Your task to perform on an android device: toggle data saver in the chrome app Image 0: 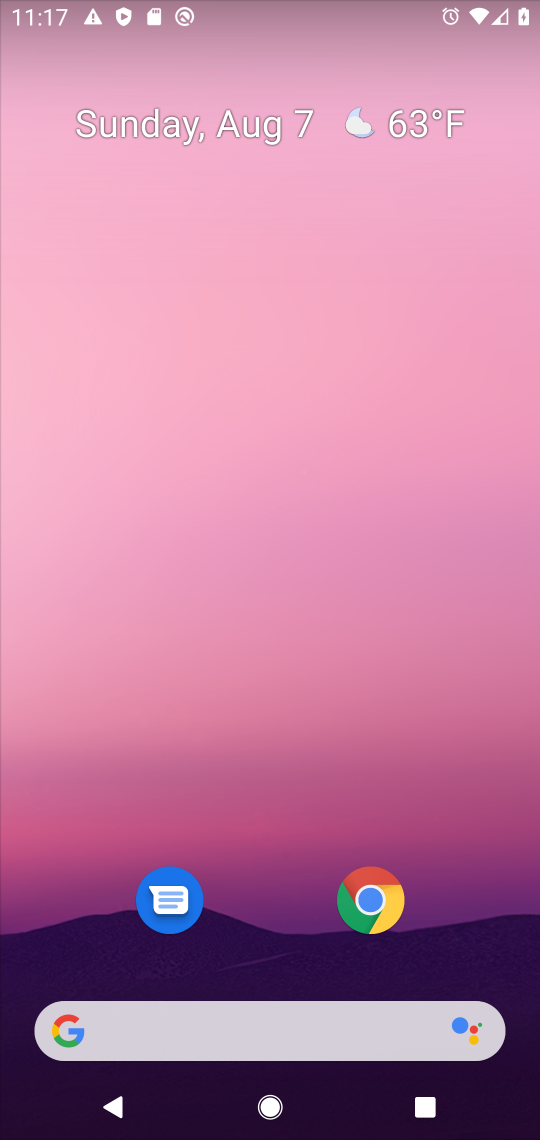
Step 0: press home button
Your task to perform on an android device: toggle data saver in the chrome app Image 1: 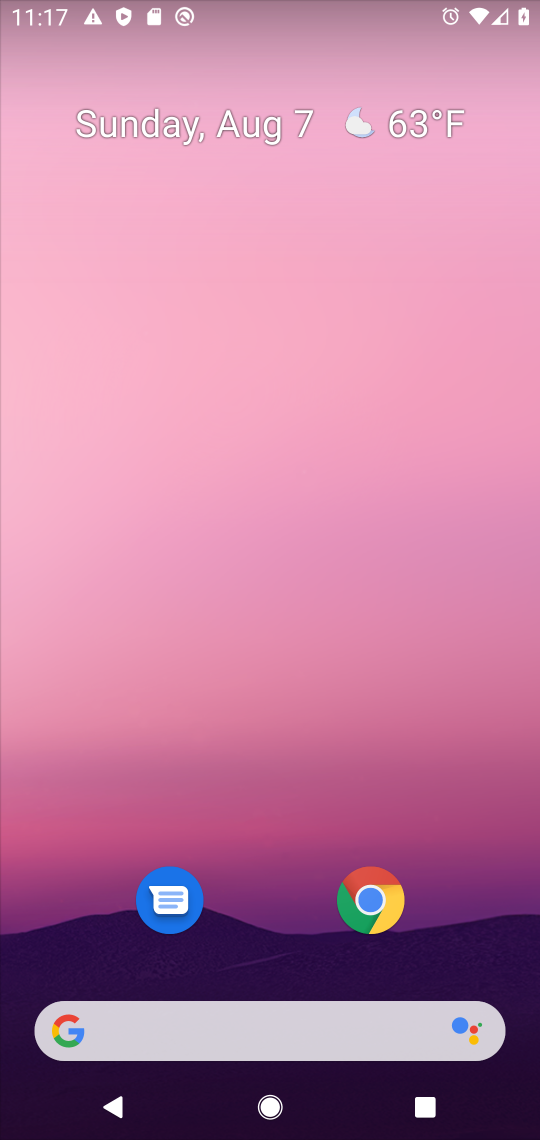
Step 1: click (367, 887)
Your task to perform on an android device: toggle data saver in the chrome app Image 2: 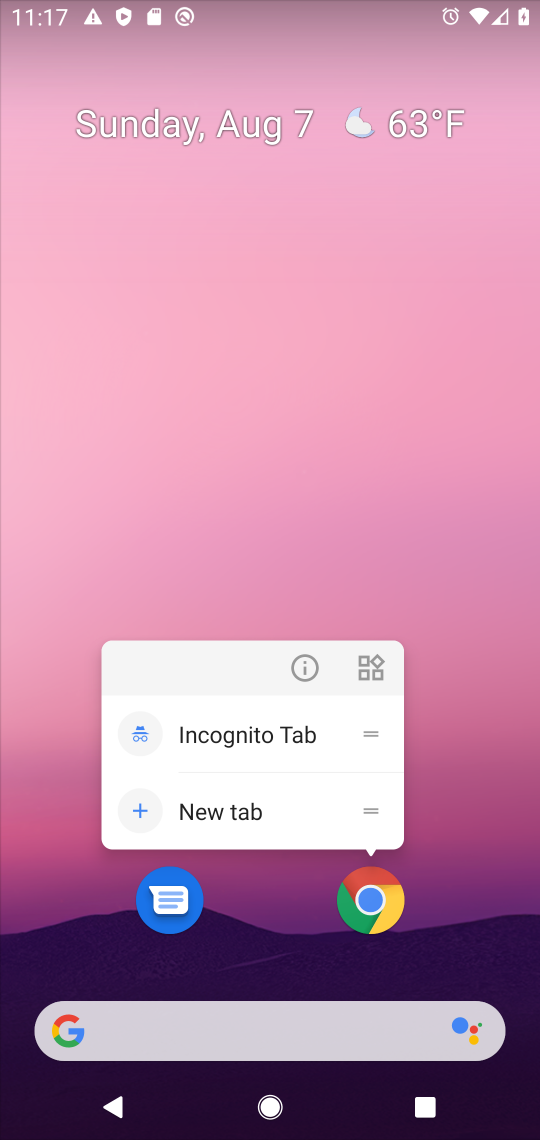
Step 2: click (367, 887)
Your task to perform on an android device: toggle data saver in the chrome app Image 3: 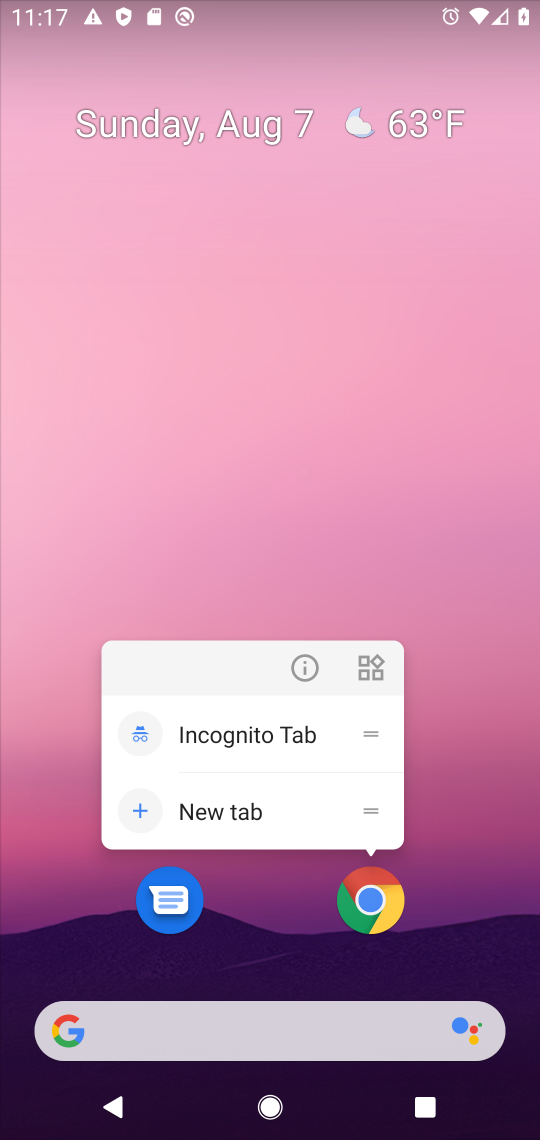
Step 3: click (367, 887)
Your task to perform on an android device: toggle data saver in the chrome app Image 4: 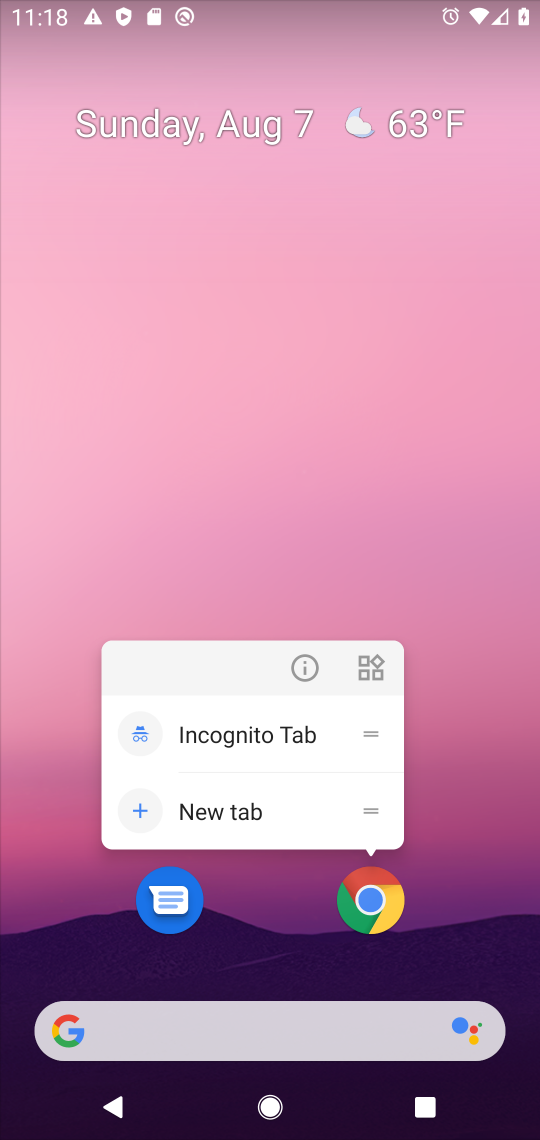
Step 4: click (368, 895)
Your task to perform on an android device: toggle data saver in the chrome app Image 5: 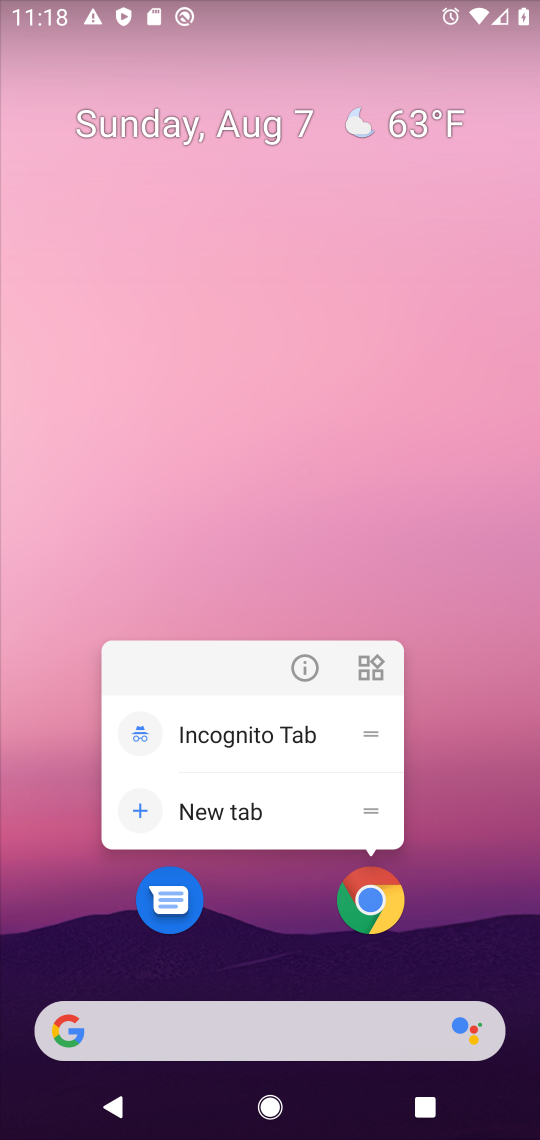
Step 5: click (368, 896)
Your task to perform on an android device: toggle data saver in the chrome app Image 6: 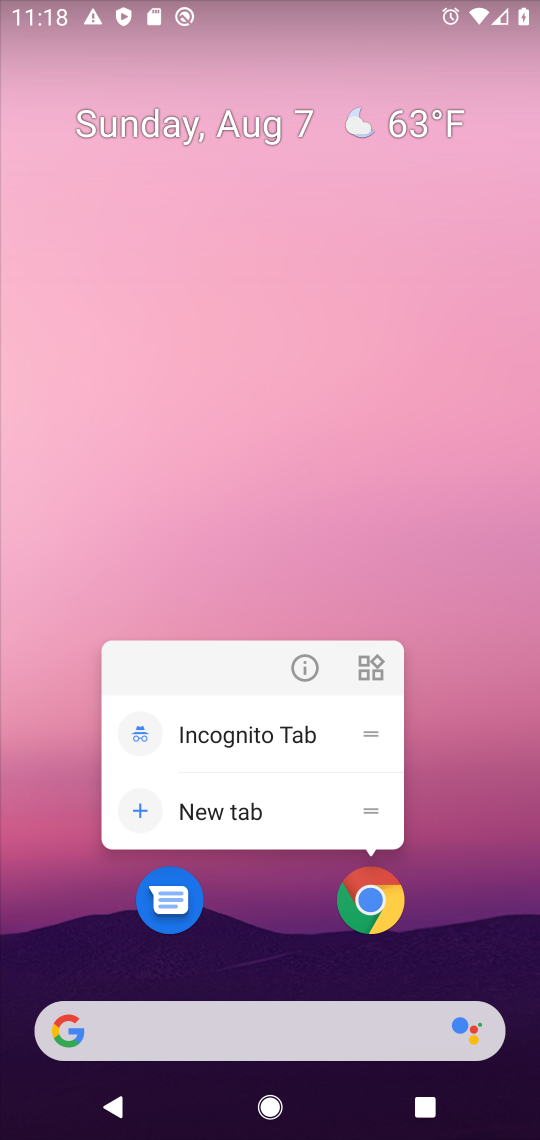
Step 6: click (370, 896)
Your task to perform on an android device: toggle data saver in the chrome app Image 7: 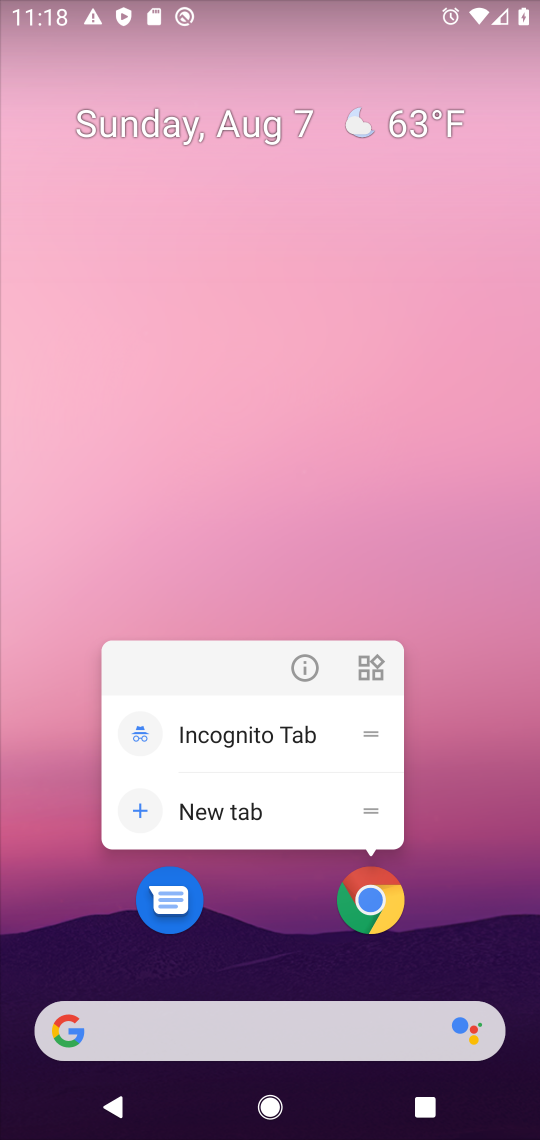
Step 7: click (433, 930)
Your task to perform on an android device: toggle data saver in the chrome app Image 8: 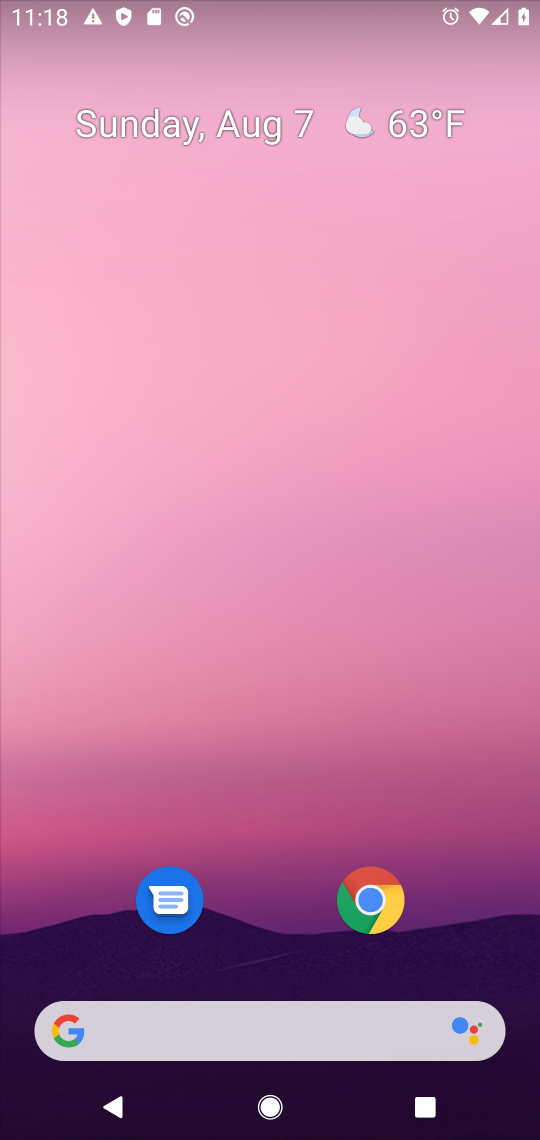
Step 8: drag from (468, 959) to (497, 104)
Your task to perform on an android device: toggle data saver in the chrome app Image 9: 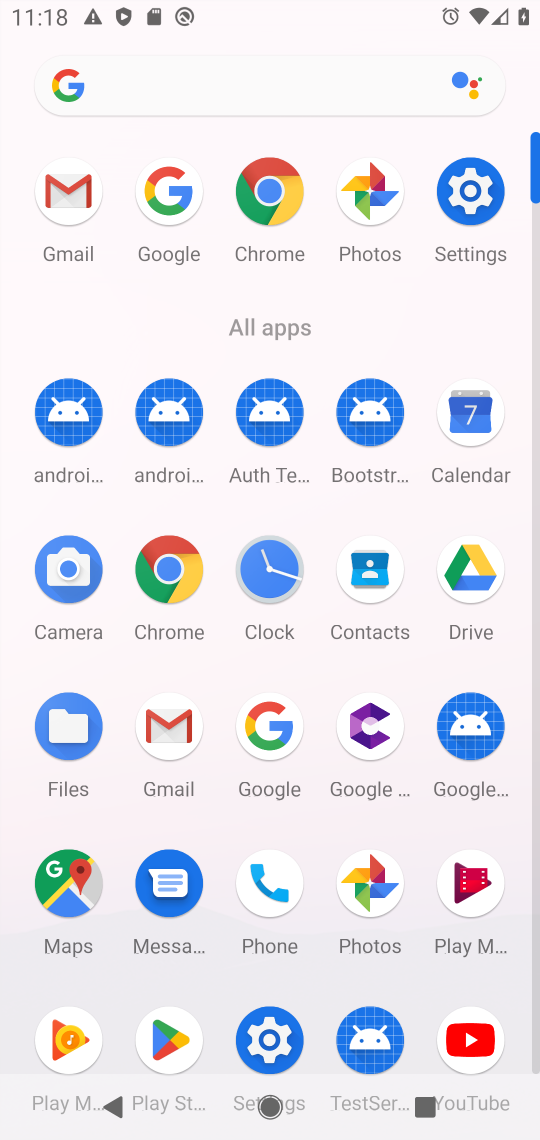
Step 9: click (163, 557)
Your task to perform on an android device: toggle data saver in the chrome app Image 10: 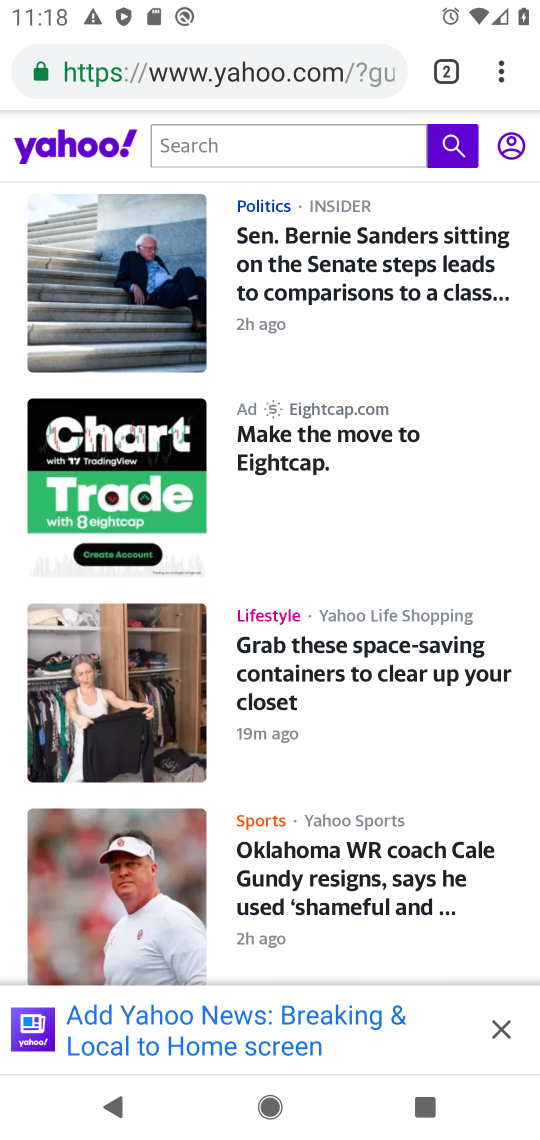
Step 10: click (503, 63)
Your task to perform on an android device: toggle data saver in the chrome app Image 11: 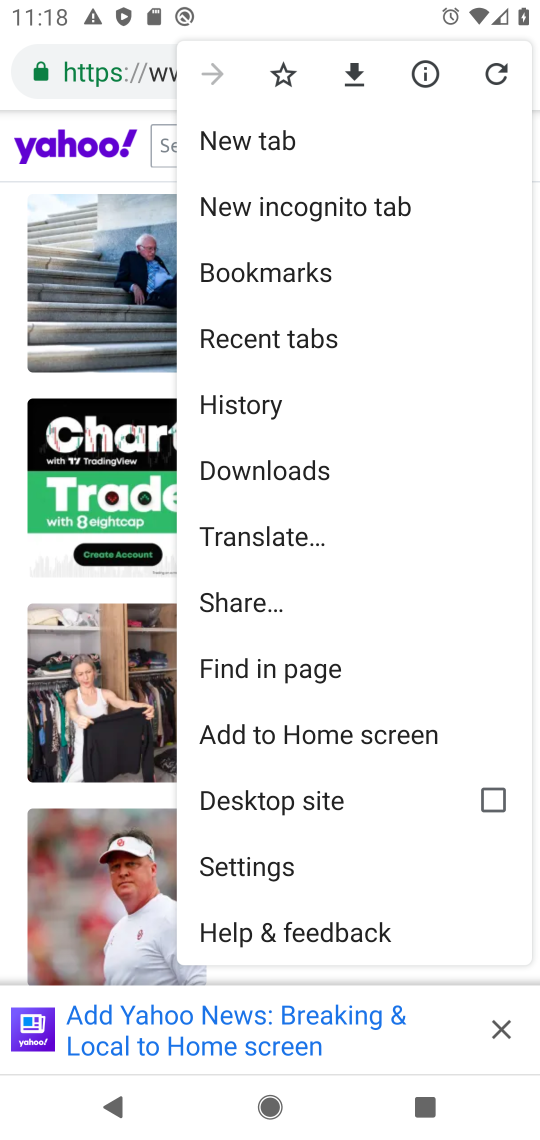
Step 11: click (302, 865)
Your task to perform on an android device: toggle data saver in the chrome app Image 12: 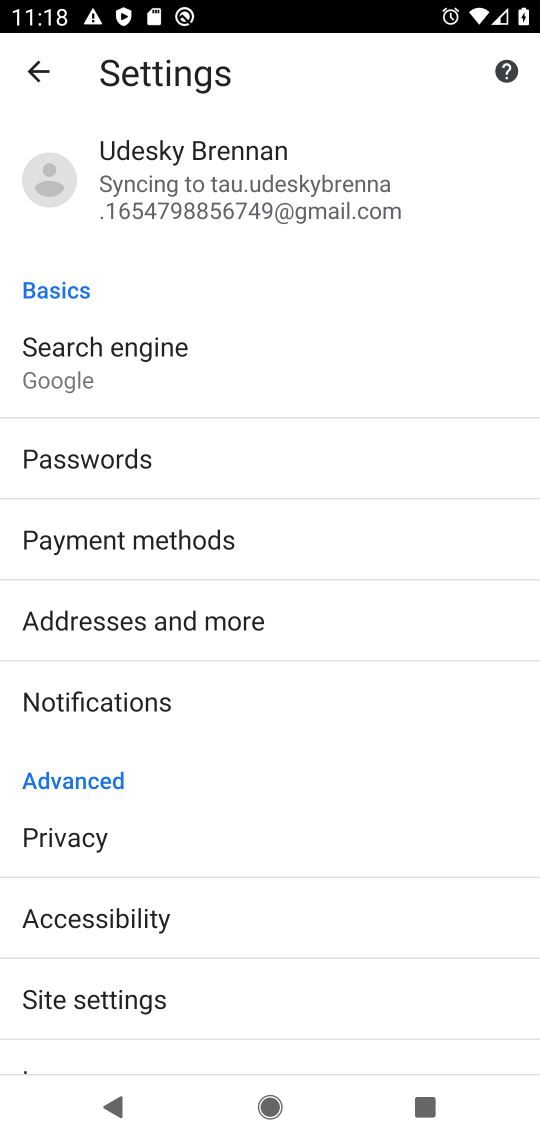
Step 12: drag from (262, 974) to (300, 236)
Your task to perform on an android device: toggle data saver in the chrome app Image 13: 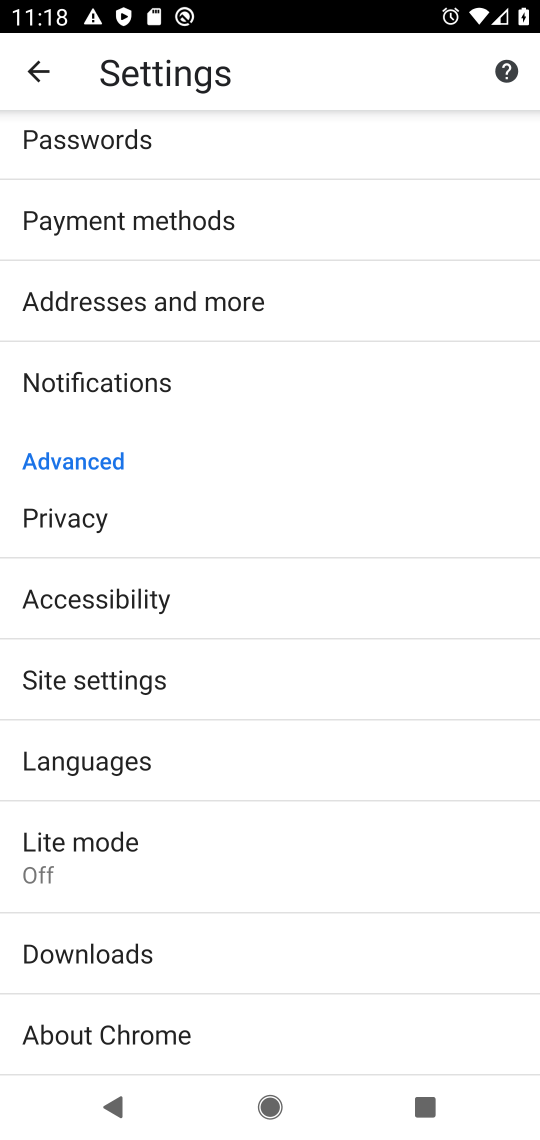
Step 13: click (151, 844)
Your task to perform on an android device: toggle data saver in the chrome app Image 14: 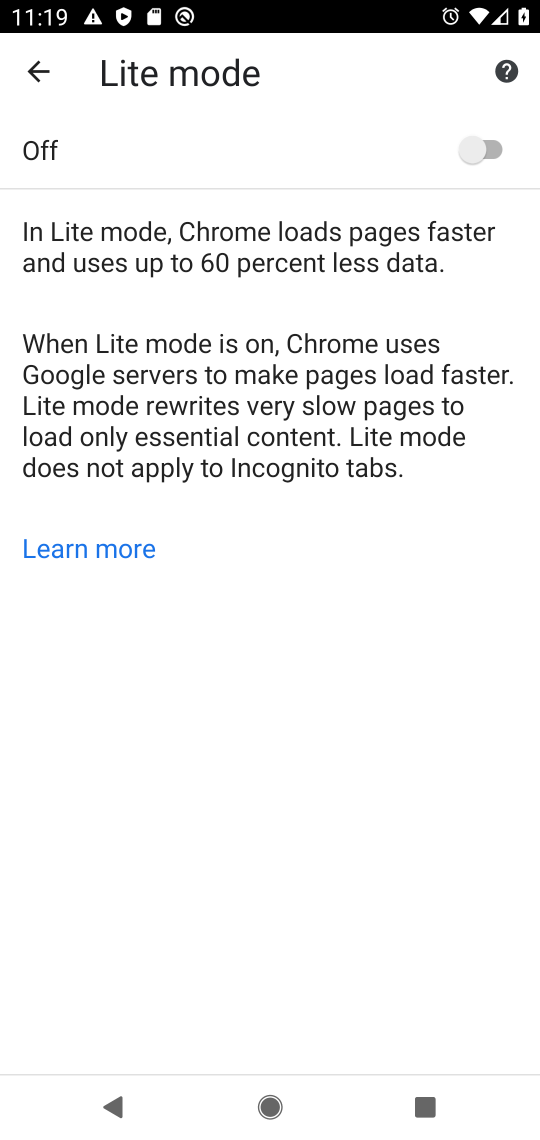
Step 14: click (485, 120)
Your task to perform on an android device: toggle data saver in the chrome app Image 15: 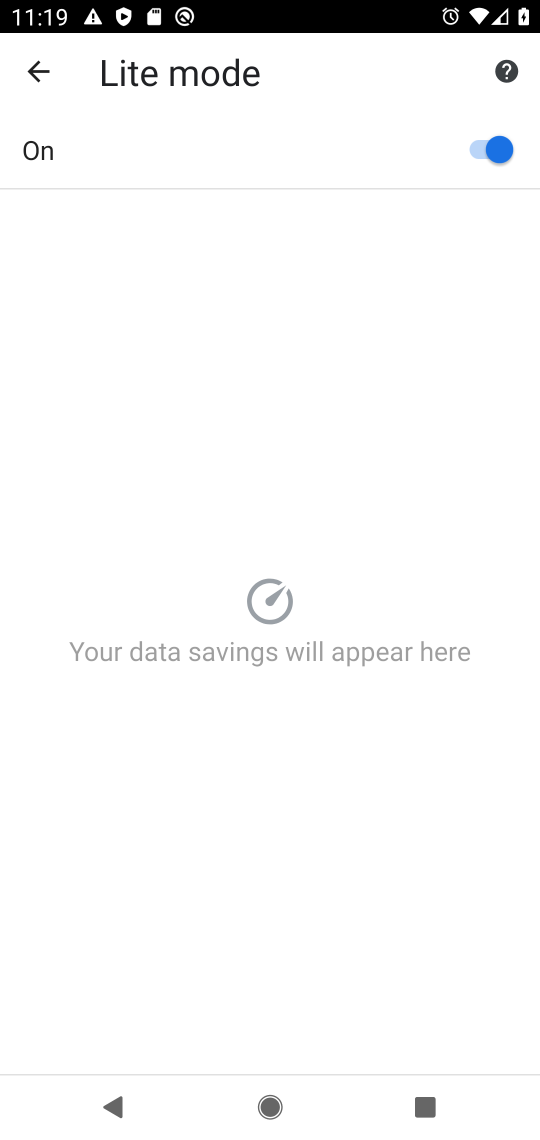
Step 15: task complete